Your task to perform on an android device: toggle improve location accuracy Image 0: 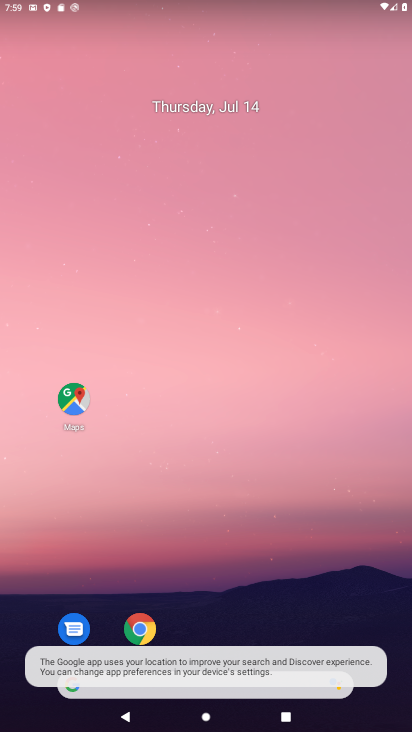
Step 0: drag from (241, 665) to (217, 37)
Your task to perform on an android device: toggle improve location accuracy Image 1: 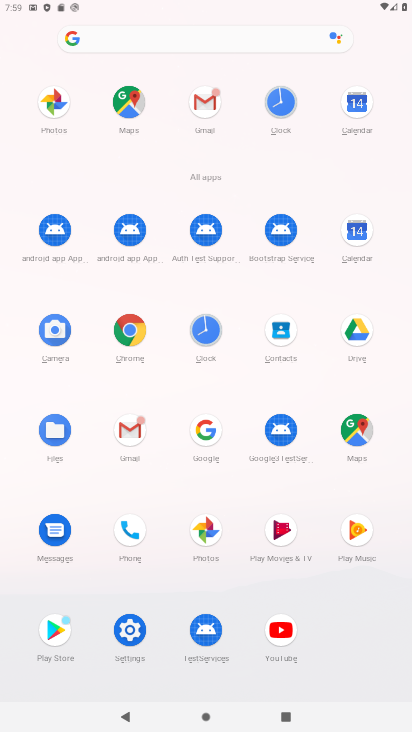
Step 1: click (138, 616)
Your task to perform on an android device: toggle improve location accuracy Image 2: 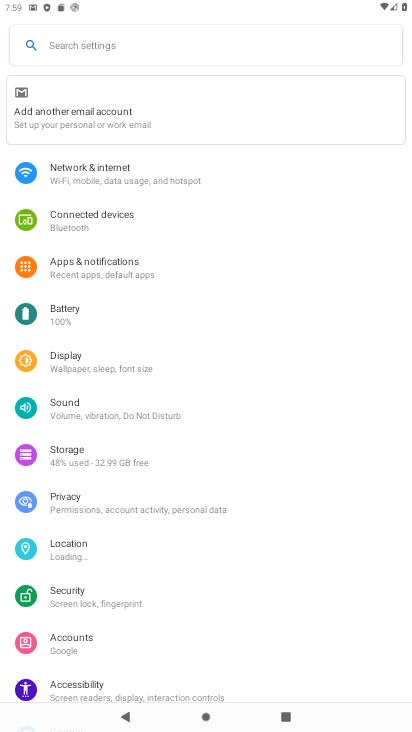
Step 2: click (82, 553)
Your task to perform on an android device: toggle improve location accuracy Image 3: 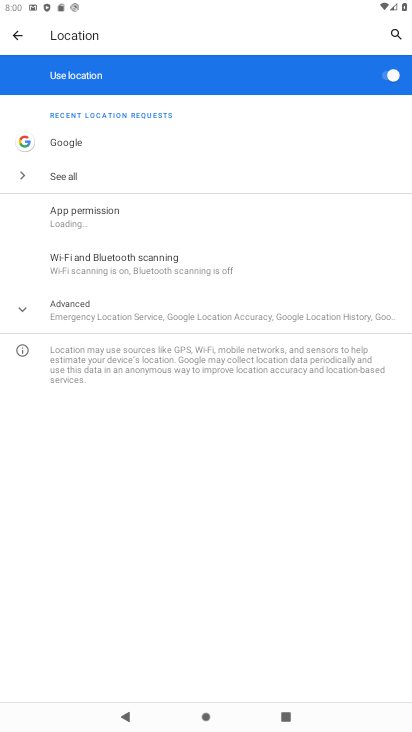
Step 3: click (83, 314)
Your task to perform on an android device: toggle improve location accuracy Image 4: 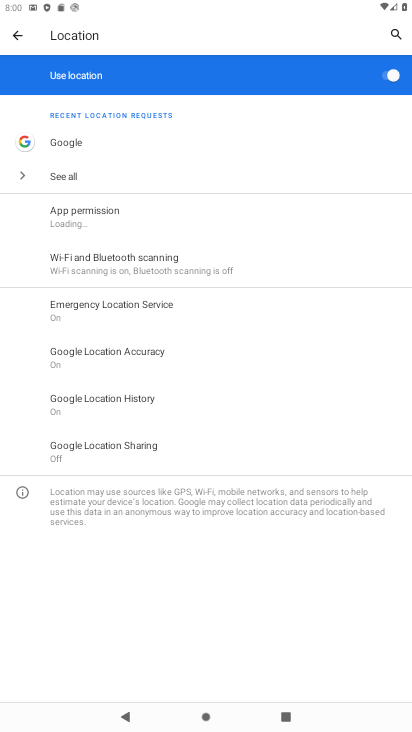
Step 4: click (76, 362)
Your task to perform on an android device: toggle improve location accuracy Image 5: 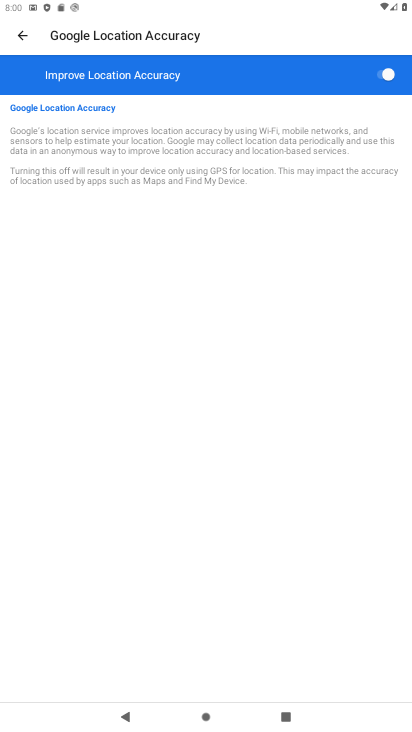
Step 5: click (380, 64)
Your task to perform on an android device: toggle improve location accuracy Image 6: 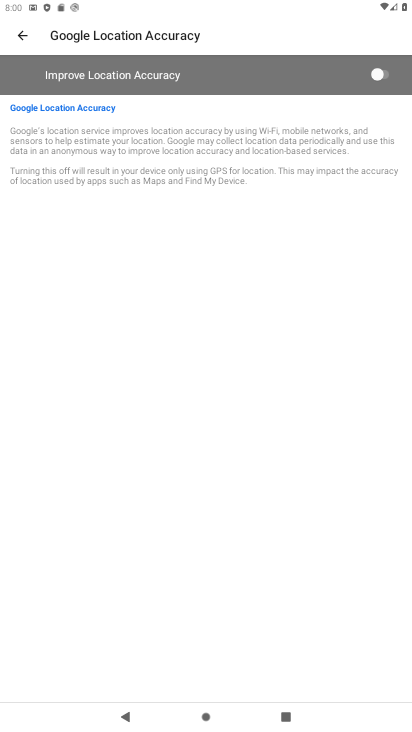
Step 6: task complete